Your task to perform on an android device: Do I have any events today? Image 0: 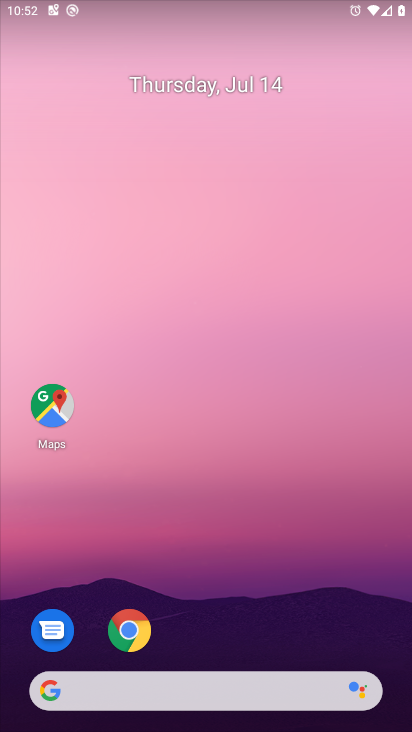
Step 0: drag from (39, 677) to (97, 84)
Your task to perform on an android device: Do I have any events today? Image 1: 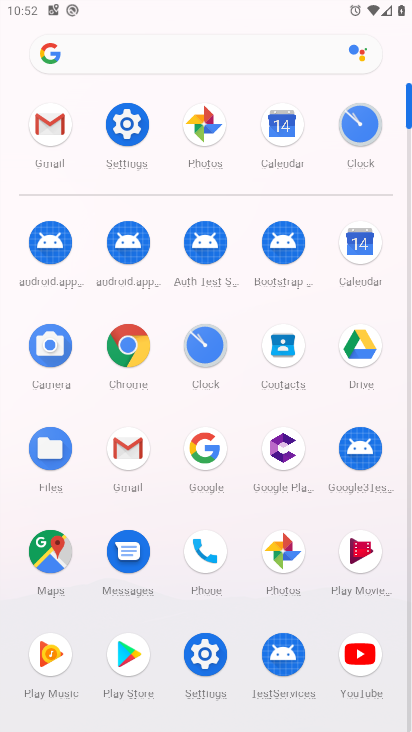
Step 1: click (378, 259)
Your task to perform on an android device: Do I have any events today? Image 2: 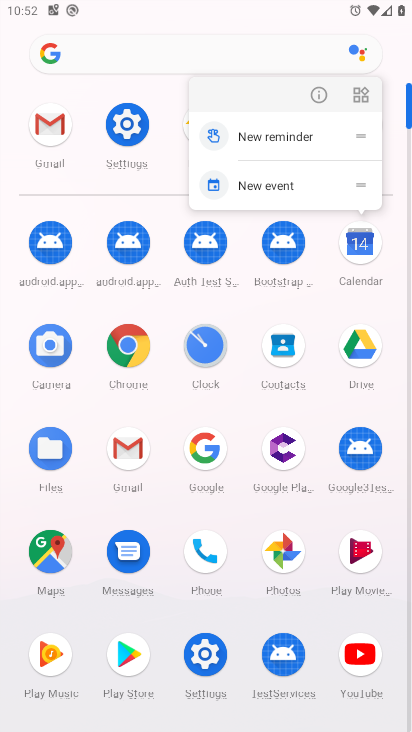
Step 2: click (369, 259)
Your task to perform on an android device: Do I have any events today? Image 3: 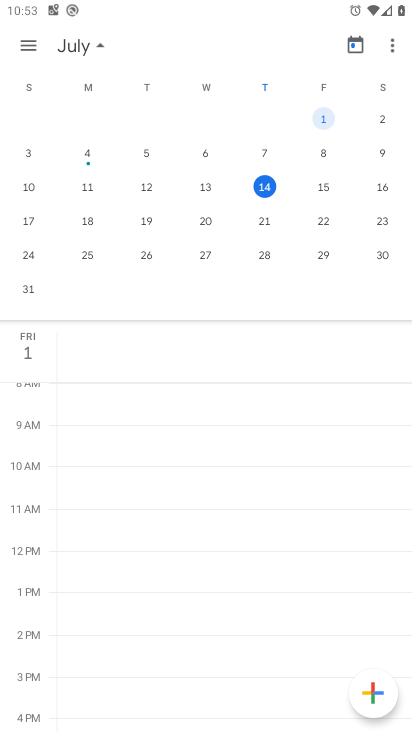
Step 3: task complete